Your task to perform on an android device: turn on translation in the chrome app Image 0: 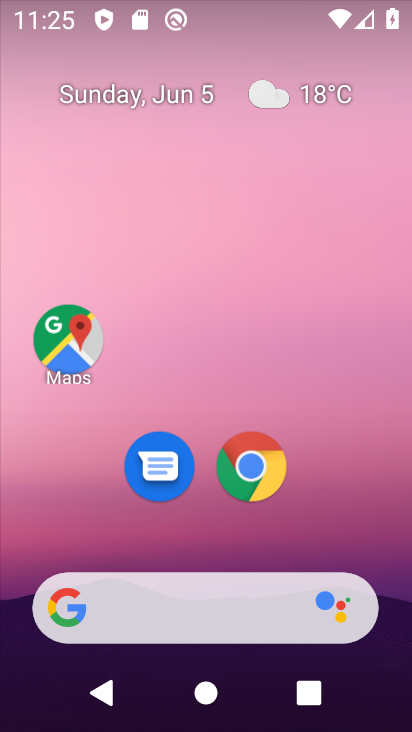
Step 0: drag from (387, 531) to (255, 4)
Your task to perform on an android device: turn on translation in the chrome app Image 1: 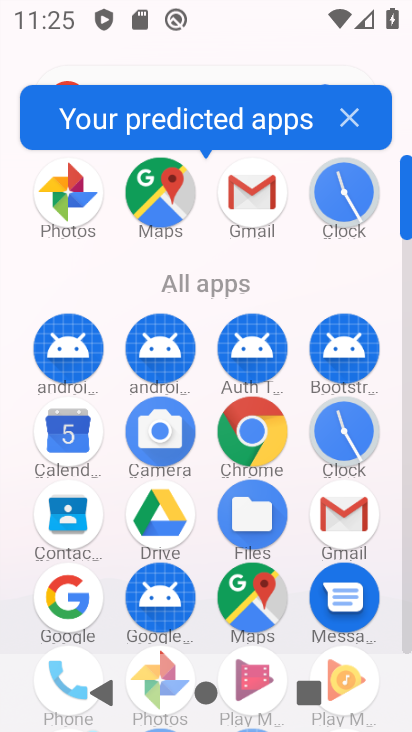
Step 1: drag from (5, 575) to (11, 273)
Your task to perform on an android device: turn on translation in the chrome app Image 2: 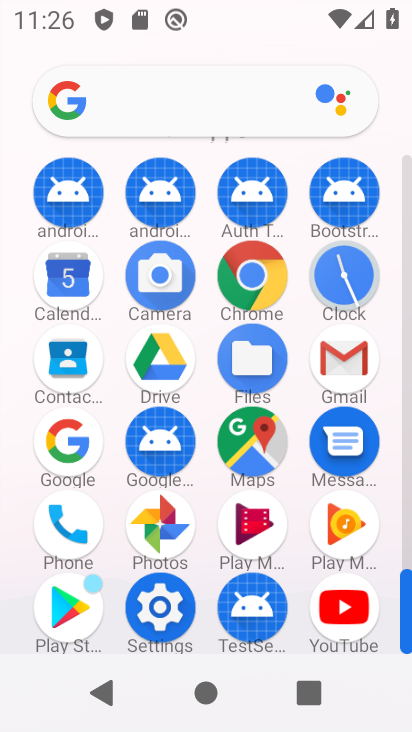
Step 2: click (255, 273)
Your task to perform on an android device: turn on translation in the chrome app Image 3: 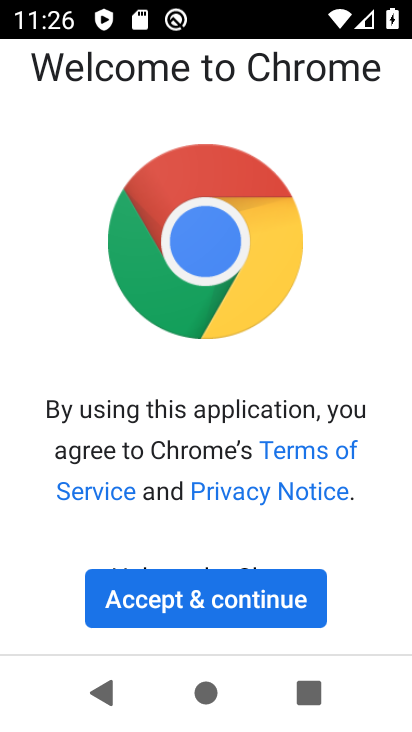
Step 3: click (250, 581)
Your task to perform on an android device: turn on translation in the chrome app Image 4: 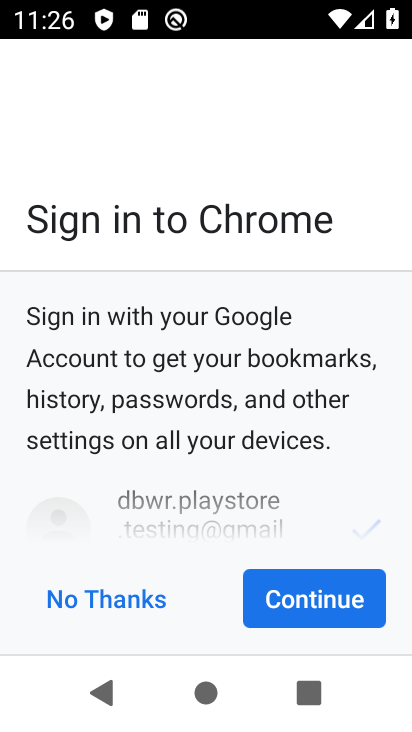
Step 4: click (324, 595)
Your task to perform on an android device: turn on translation in the chrome app Image 5: 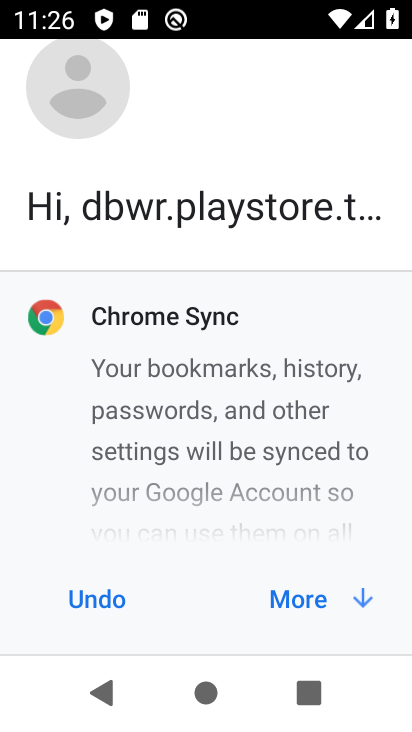
Step 5: click (320, 595)
Your task to perform on an android device: turn on translation in the chrome app Image 6: 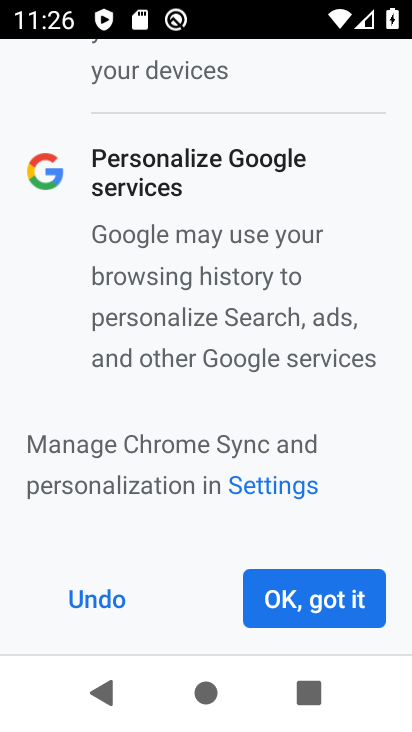
Step 6: click (320, 595)
Your task to perform on an android device: turn on translation in the chrome app Image 7: 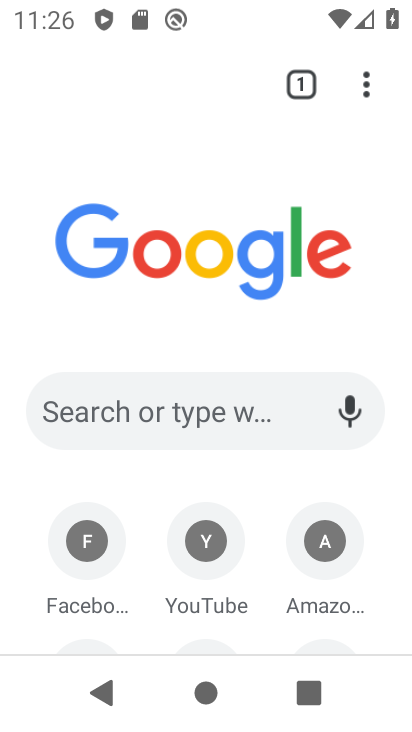
Step 7: drag from (367, 78) to (228, 510)
Your task to perform on an android device: turn on translation in the chrome app Image 8: 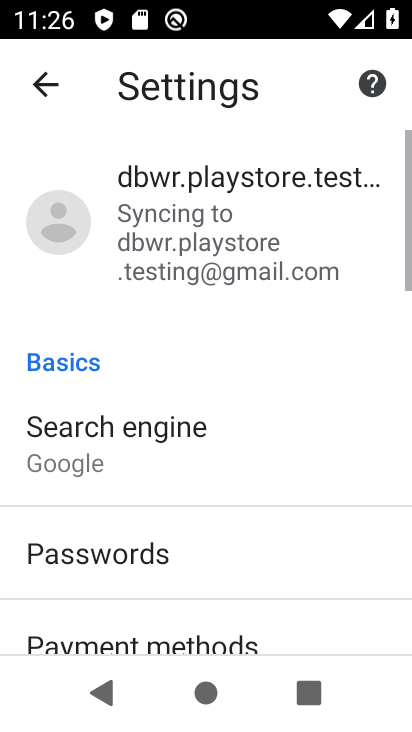
Step 8: drag from (280, 568) to (298, 161)
Your task to perform on an android device: turn on translation in the chrome app Image 9: 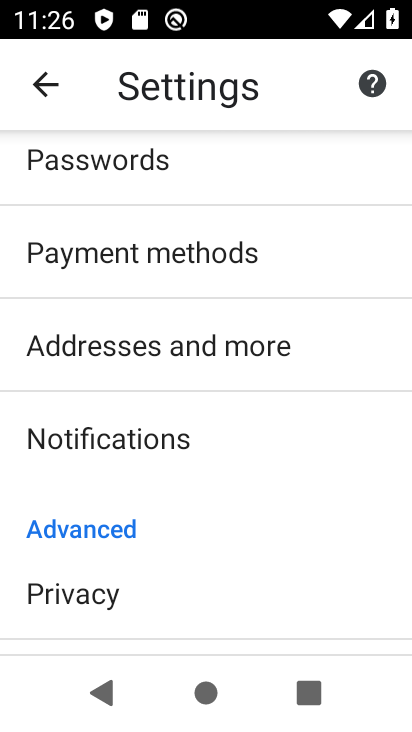
Step 9: drag from (288, 560) to (276, 180)
Your task to perform on an android device: turn on translation in the chrome app Image 10: 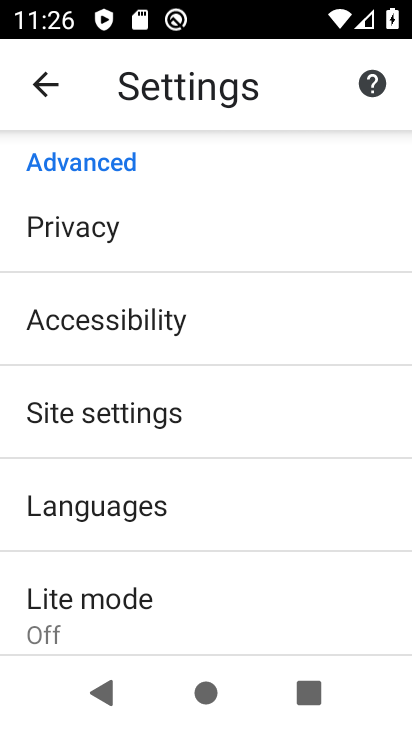
Step 10: click (188, 486)
Your task to perform on an android device: turn on translation in the chrome app Image 11: 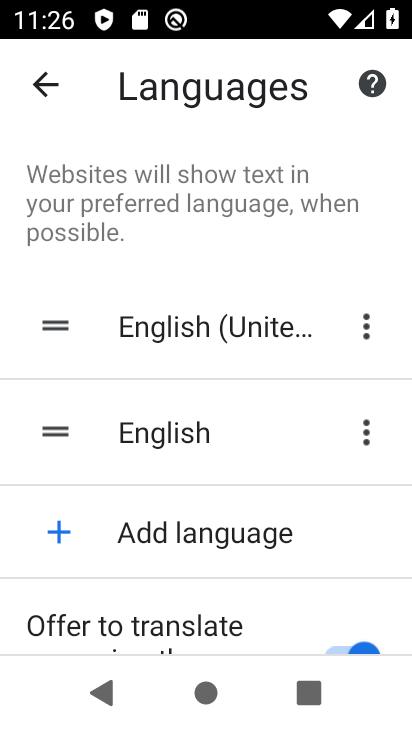
Step 11: task complete